Your task to perform on an android device: Open notification settings Image 0: 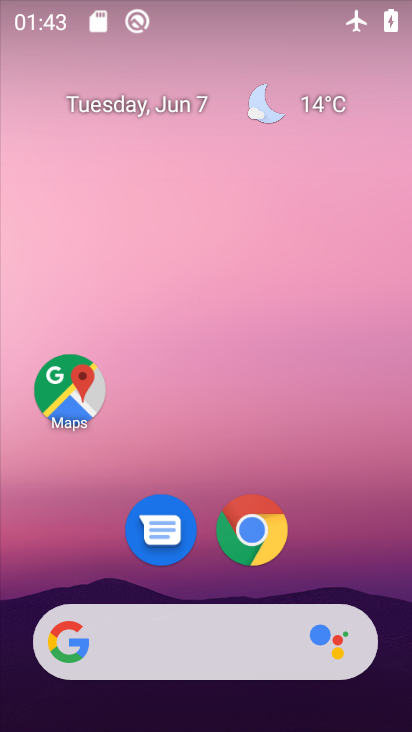
Step 0: drag from (327, 581) to (293, 167)
Your task to perform on an android device: Open notification settings Image 1: 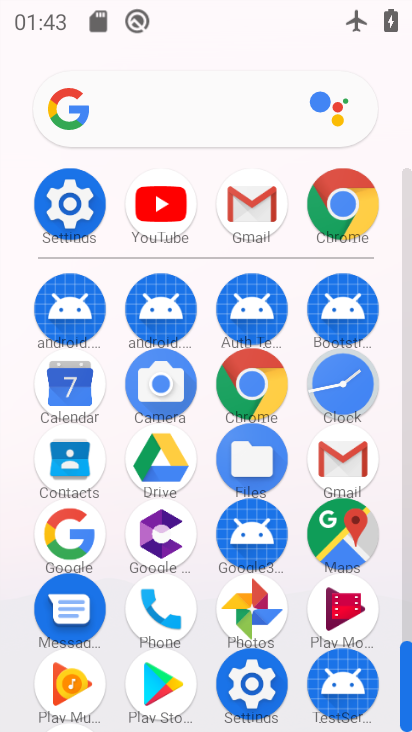
Step 1: click (71, 194)
Your task to perform on an android device: Open notification settings Image 2: 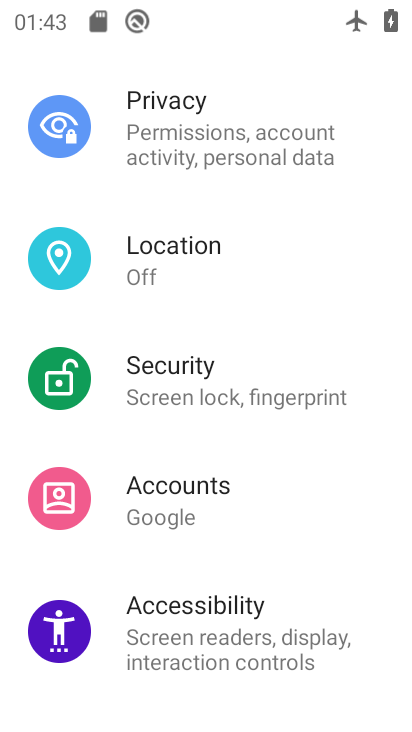
Step 2: drag from (203, 144) to (206, 583)
Your task to perform on an android device: Open notification settings Image 3: 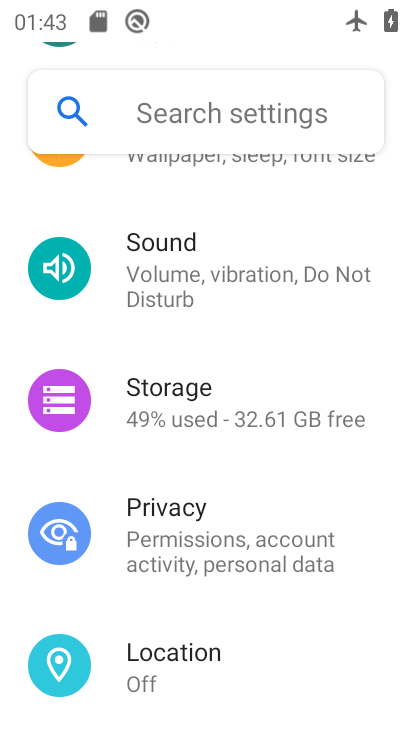
Step 3: drag from (240, 334) to (241, 629)
Your task to perform on an android device: Open notification settings Image 4: 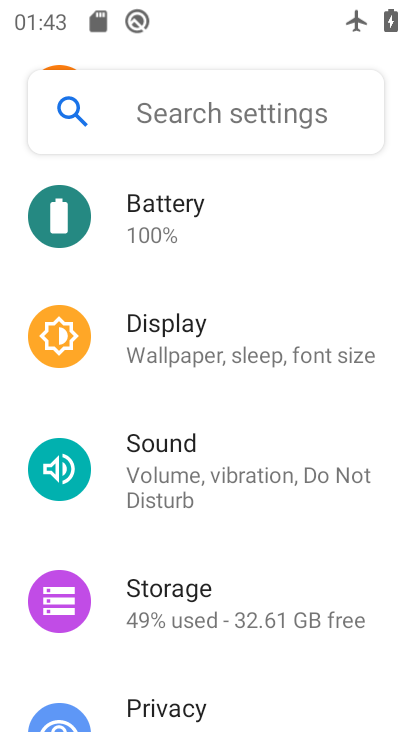
Step 4: drag from (202, 232) to (220, 659)
Your task to perform on an android device: Open notification settings Image 5: 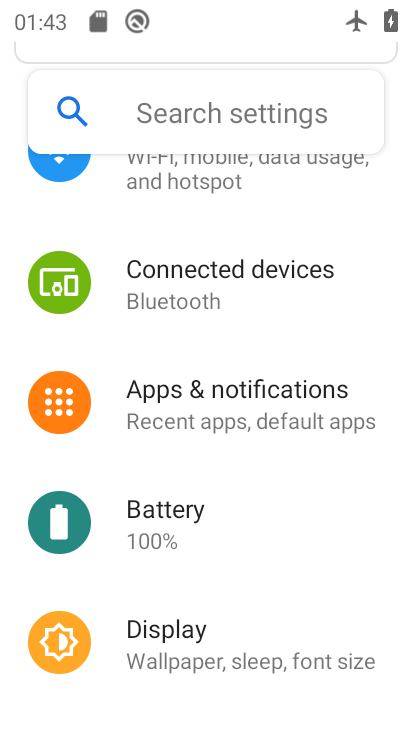
Step 5: drag from (212, 234) to (225, 697)
Your task to perform on an android device: Open notification settings Image 6: 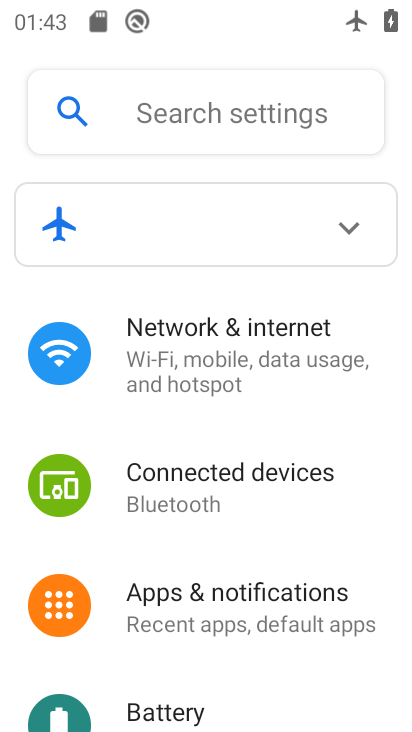
Step 6: click (196, 332)
Your task to perform on an android device: Open notification settings Image 7: 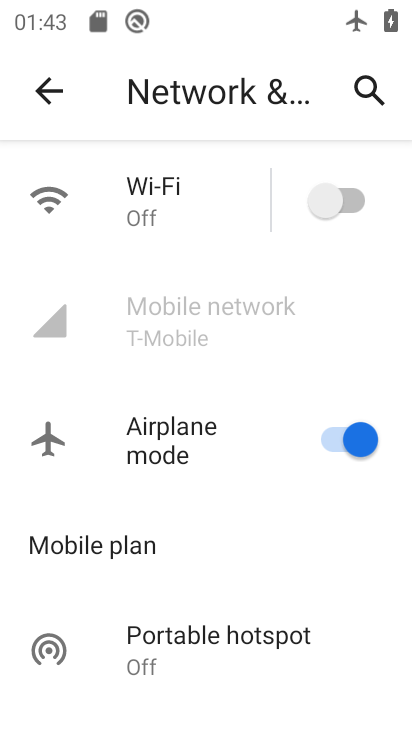
Step 7: click (48, 76)
Your task to perform on an android device: Open notification settings Image 8: 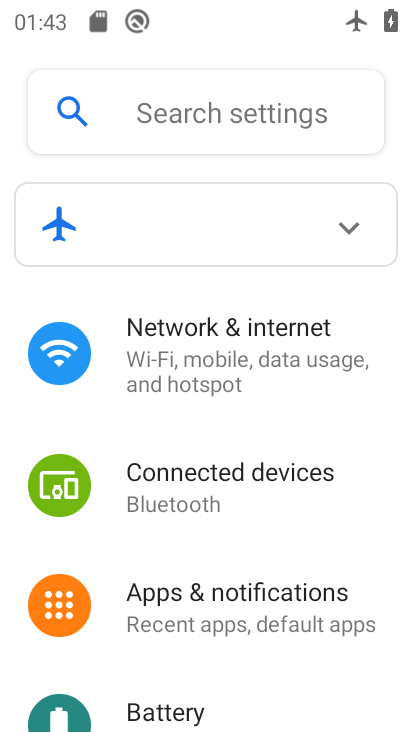
Step 8: click (220, 602)
Your task to perform on an android device: Open notification settings Image 9: 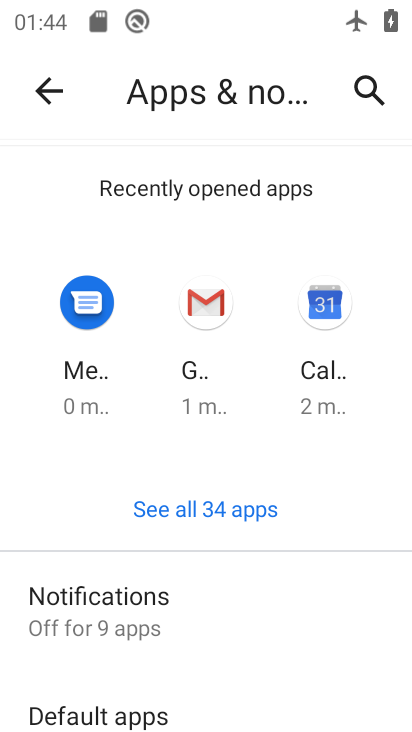
Step 9: task complete